Your task to perform on an android device: add a label to a message in the gmail app Image 0: 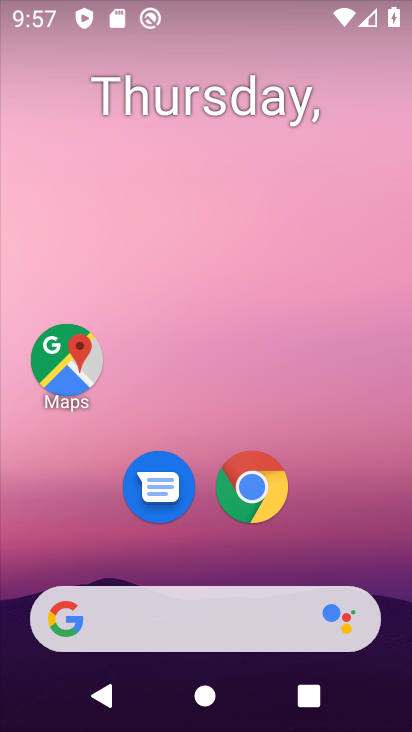
Step 0: drag from (326, 531) to (138, 201)
Your task to perform on an android device: add a label to a message in the gmail app Image 1: 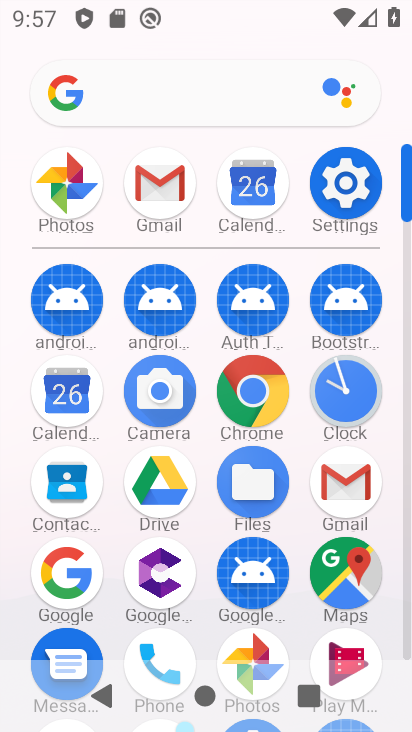
Step 1: click (161, 196)
Your task to perform on an android device: add a label to a message in the gmail app Image 2: 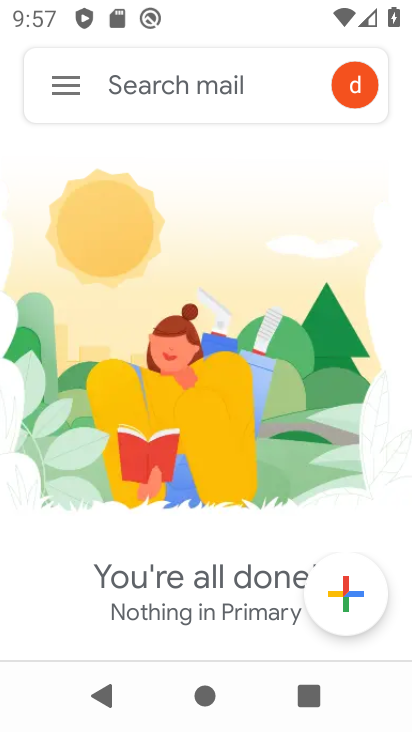
Step 2: click (63, 81)
Your task to perform on an android device: add a label to a message in the gmail app Image 3: 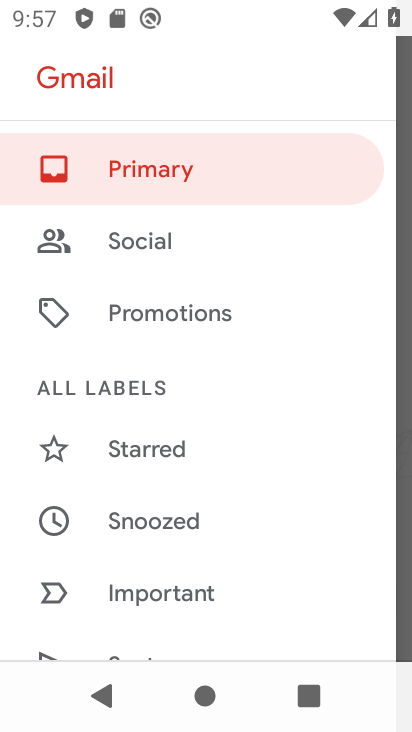
Step 3: task complete